Your task to perform on an android device: open app "Google Play Games" (install if not already installed) Image 0: 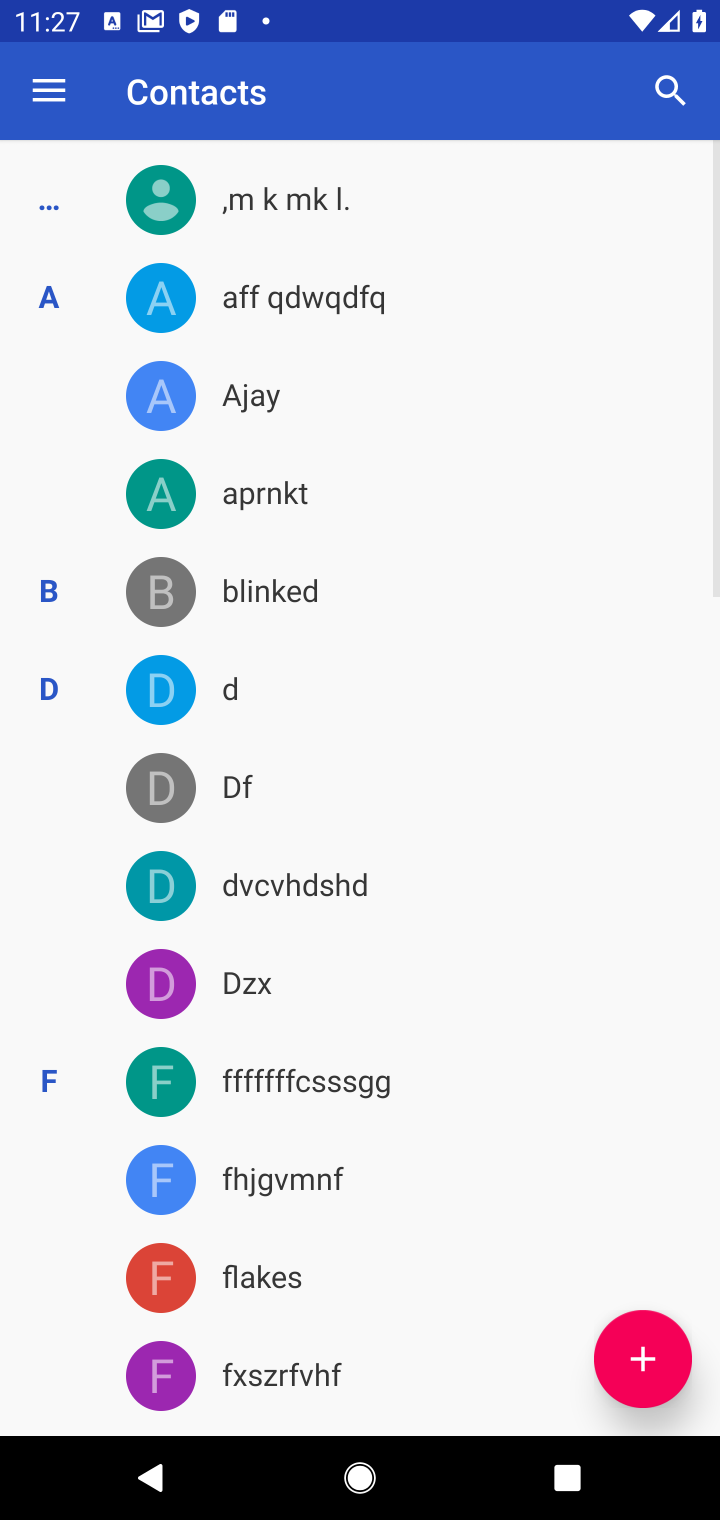
Step 0: press home button
Your task to perform on an android device: open app "Google Play Games" (install if not already installed) Image 1: 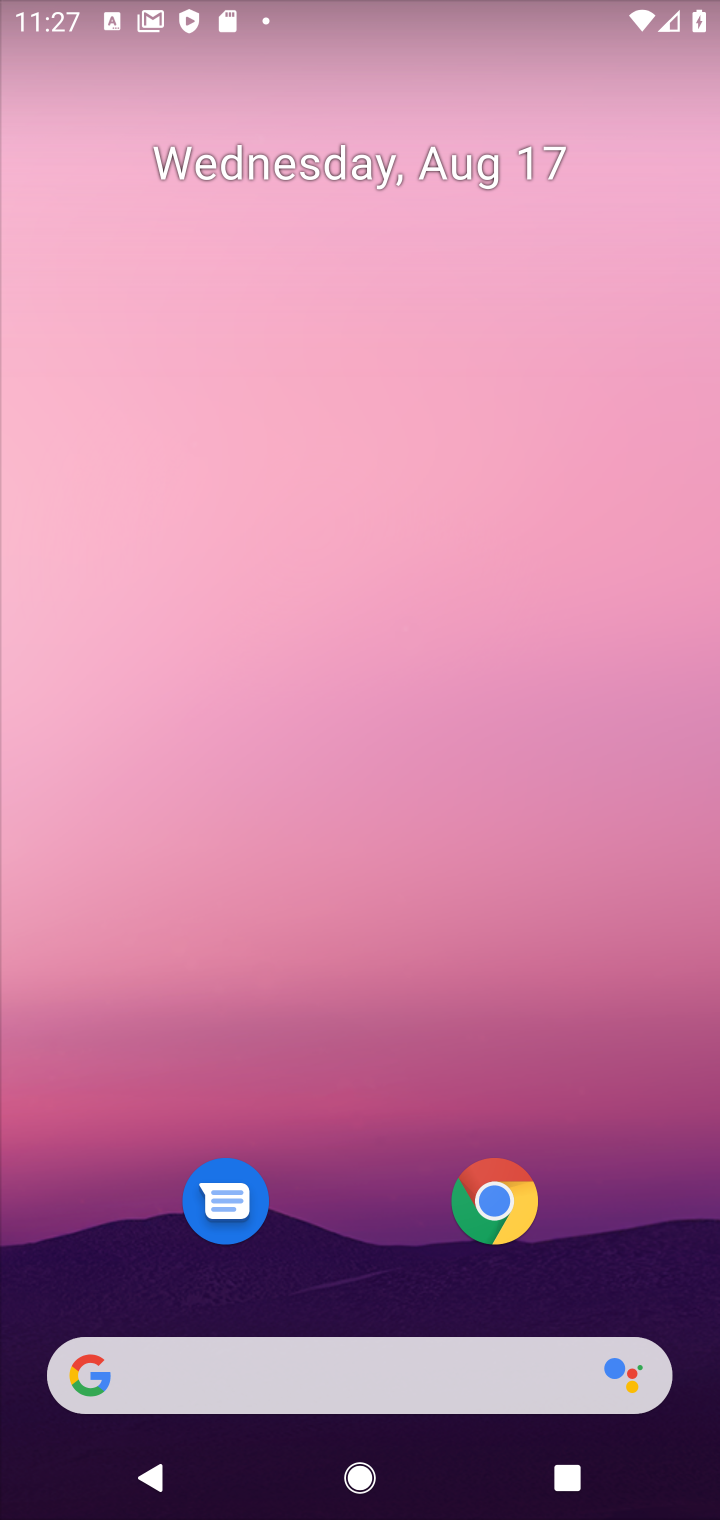
Step 1: drag from (351, 865) to (437, 315)
Your task to perform on an android device: open app "Google Play Games" (install if not already installed) Image 2: 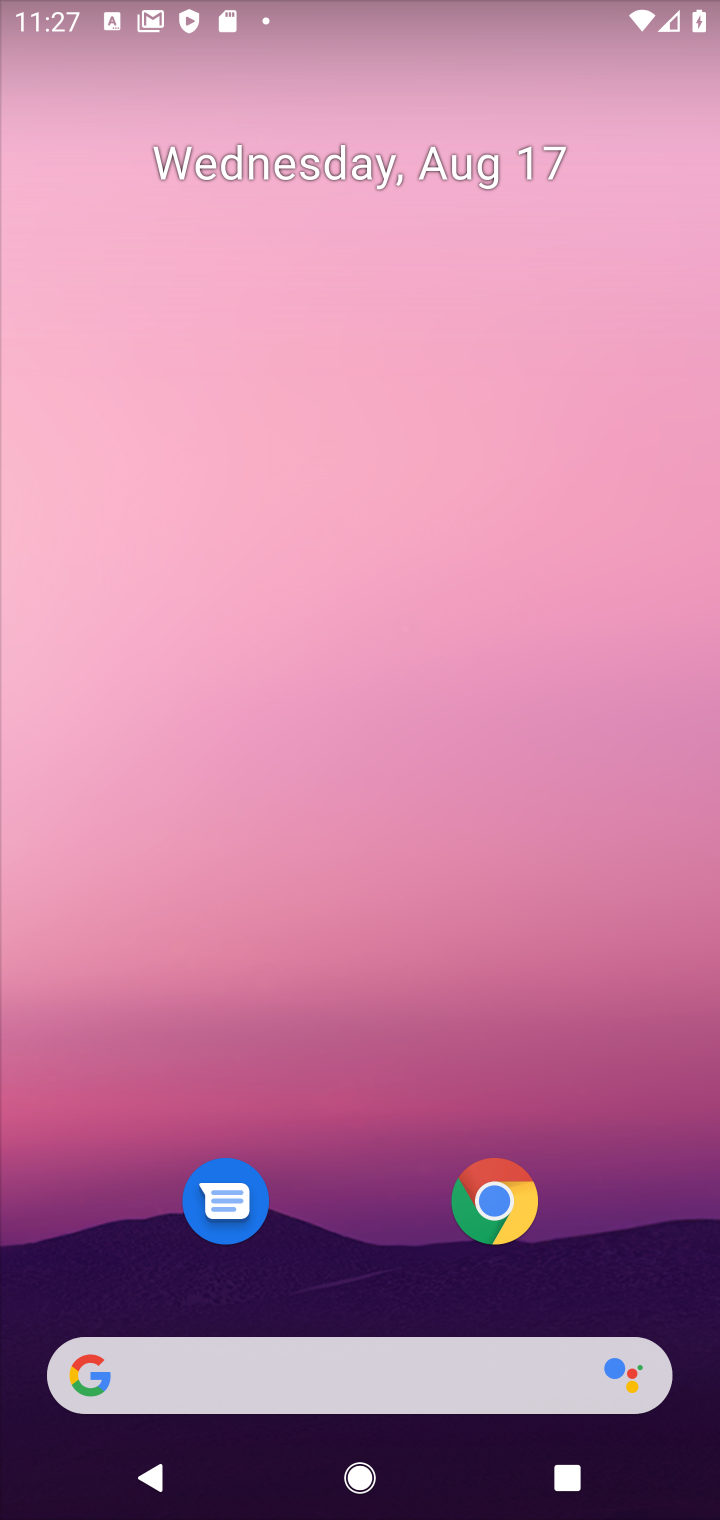
Step 2: drag from (330, 1337) to (465, 29)
Your task to perform on an android device: open app "Google Play Games" (install if not already installed) Image 3: 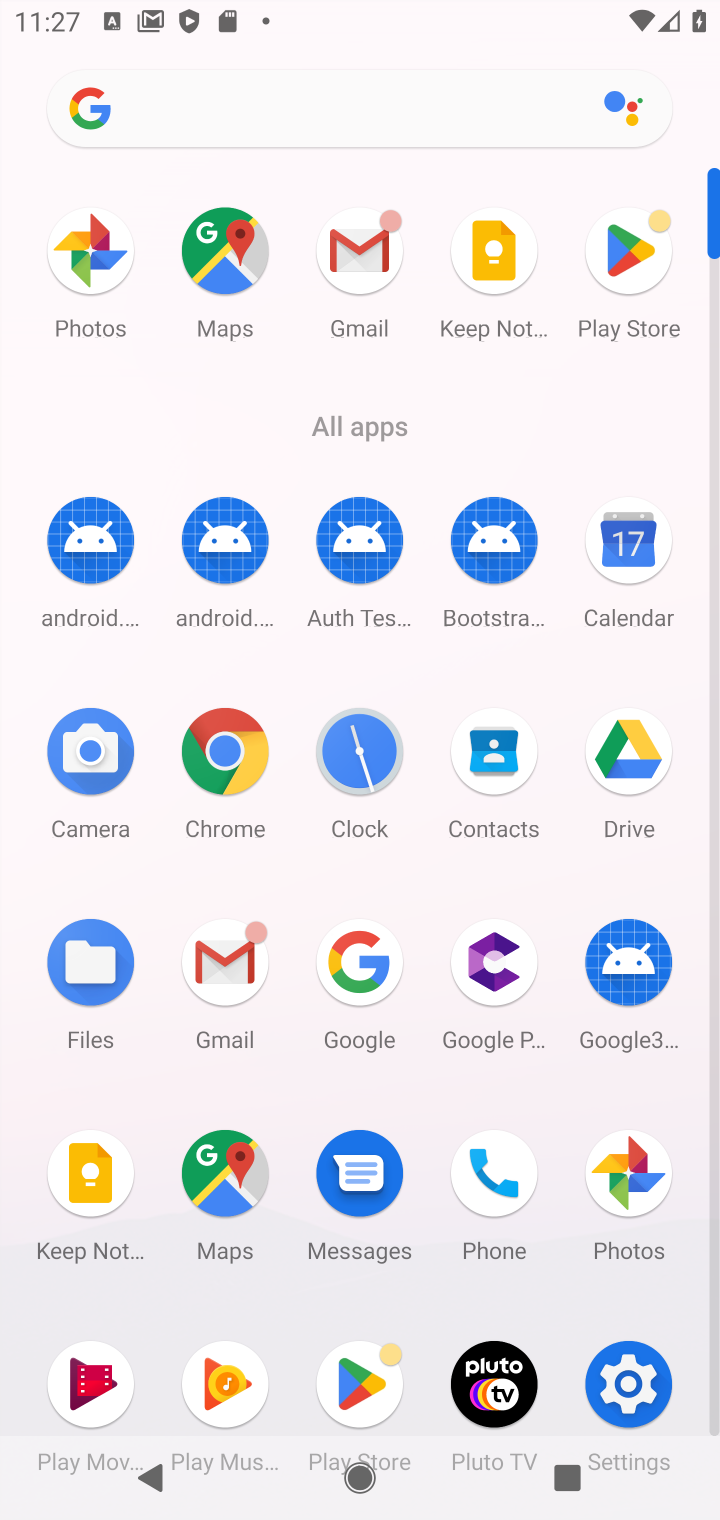
Step 3: click (623, 269)
Your task to perform on an android device: open app "Google Play Games" (install if not already installed) Image 4: 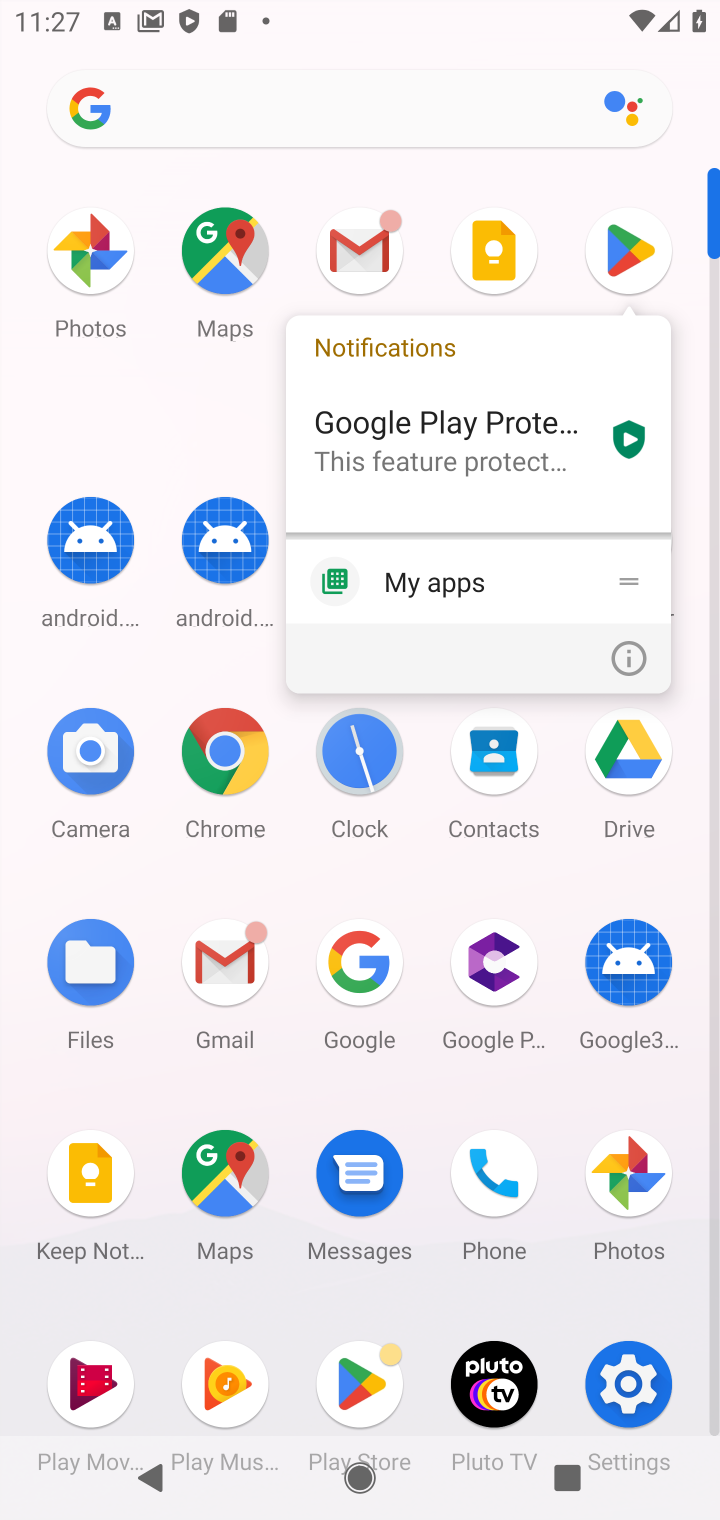
Step 4: click (623, 254)
Your task to perform on an android device: open app "Google Play Games" (install if not already installed) Image 5: 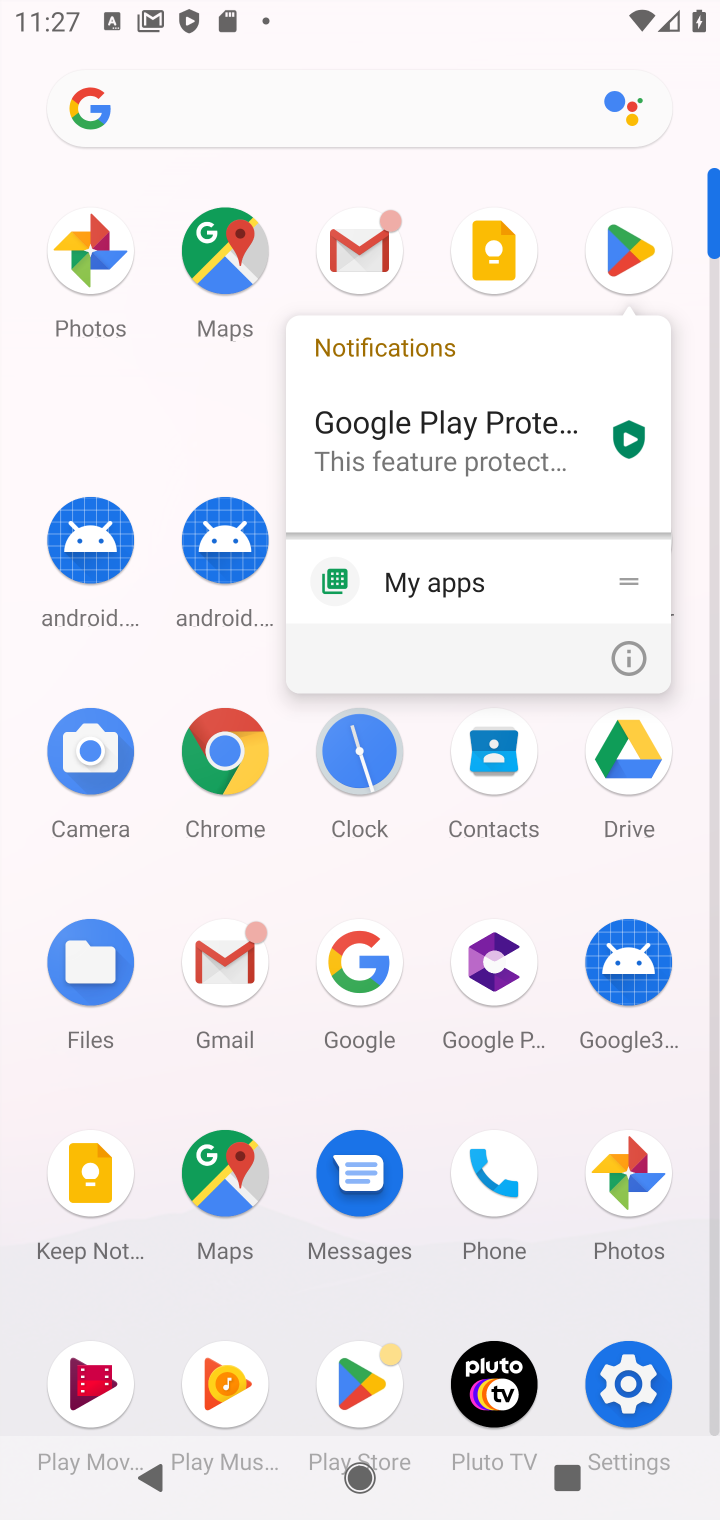
Step 5: click (619, 261)
Your task to perform on an android device: open app "Google Play Games" (install if not already installed) Image 6: 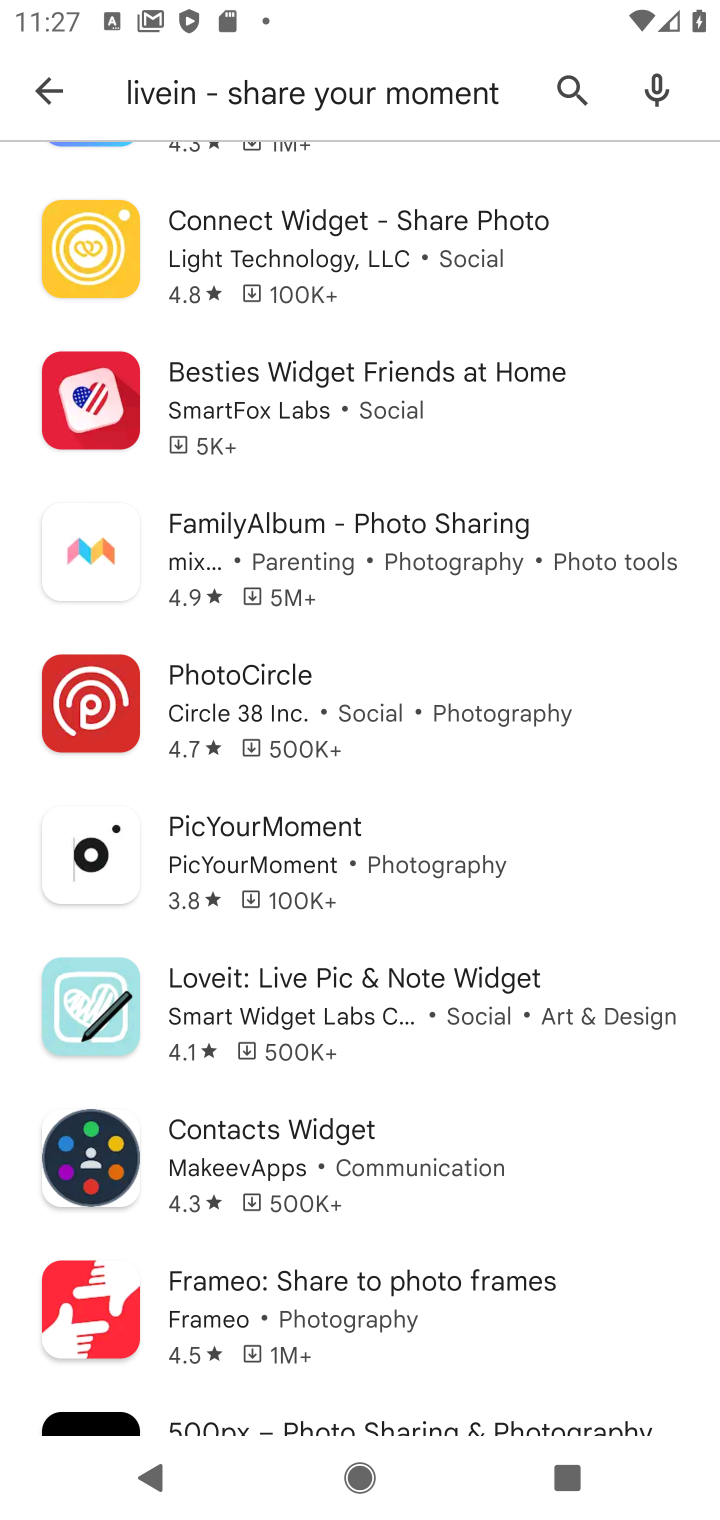
Step 6: click (275, 95)
Your task to perform on an android device: open app "Google Play Games" (install if not already installed) Image 7: 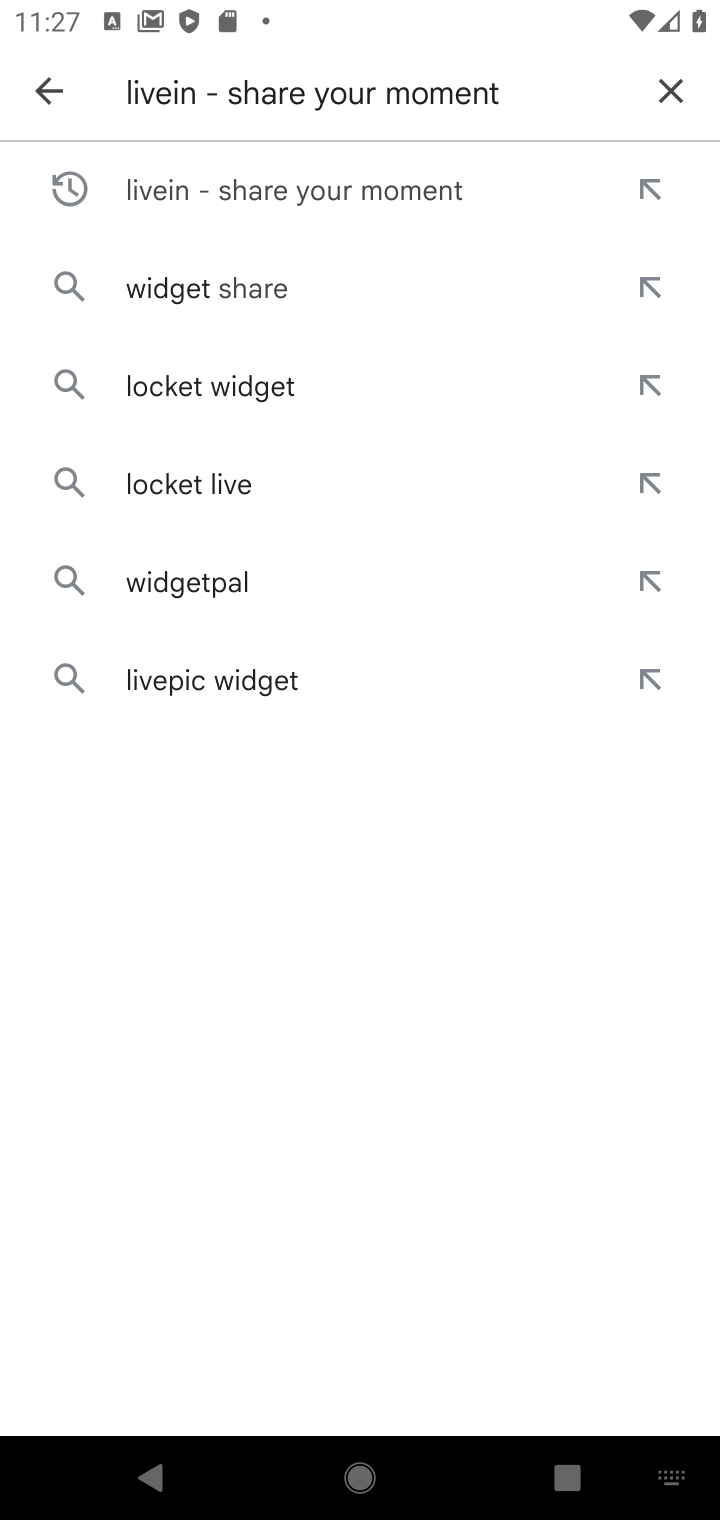
Step 7: click (659, 87)
Your task to perform on an android device: open app "Google Play Games" (install if not already installed) Image 8: 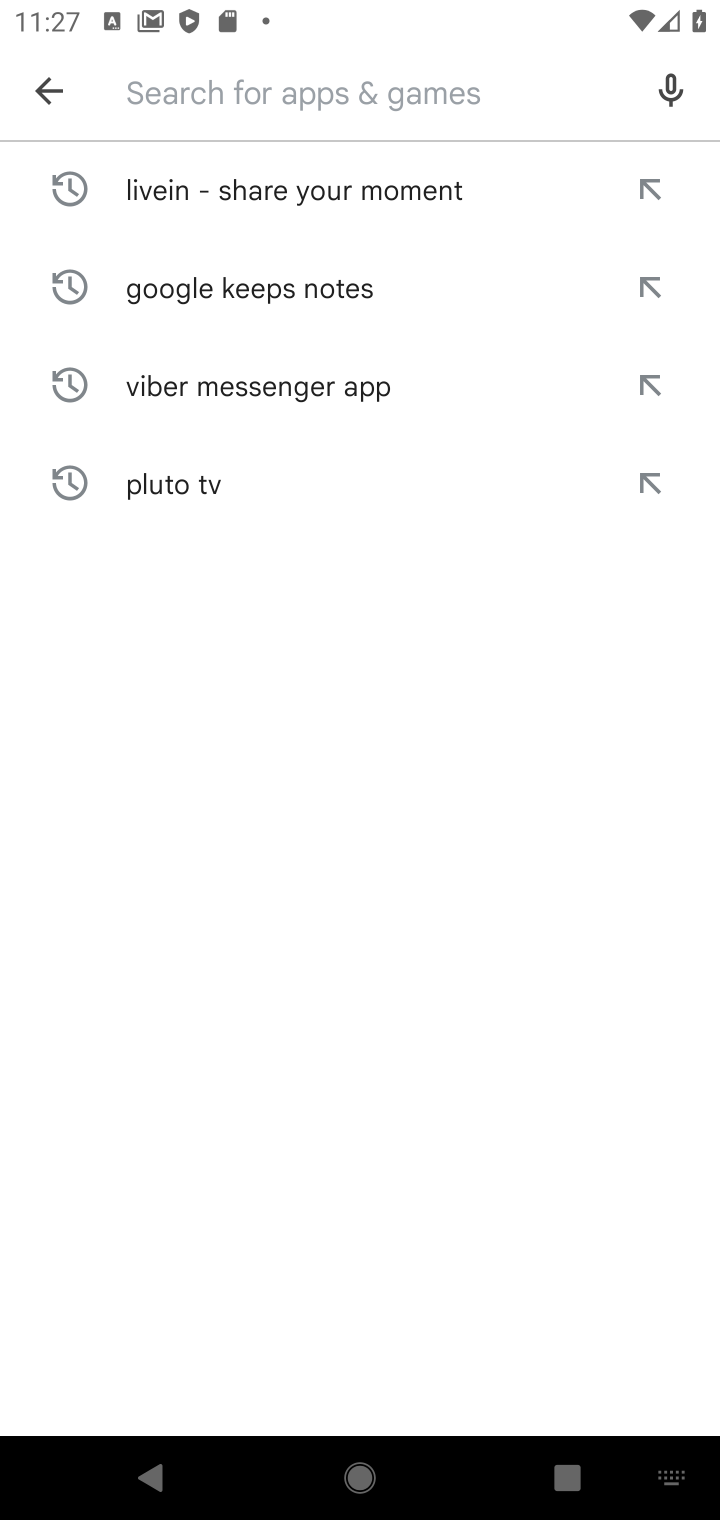
Step 8: type "google play games"
Your task to perform on an android device: open app "Google Play Games" (install if not already installed) Image 9: 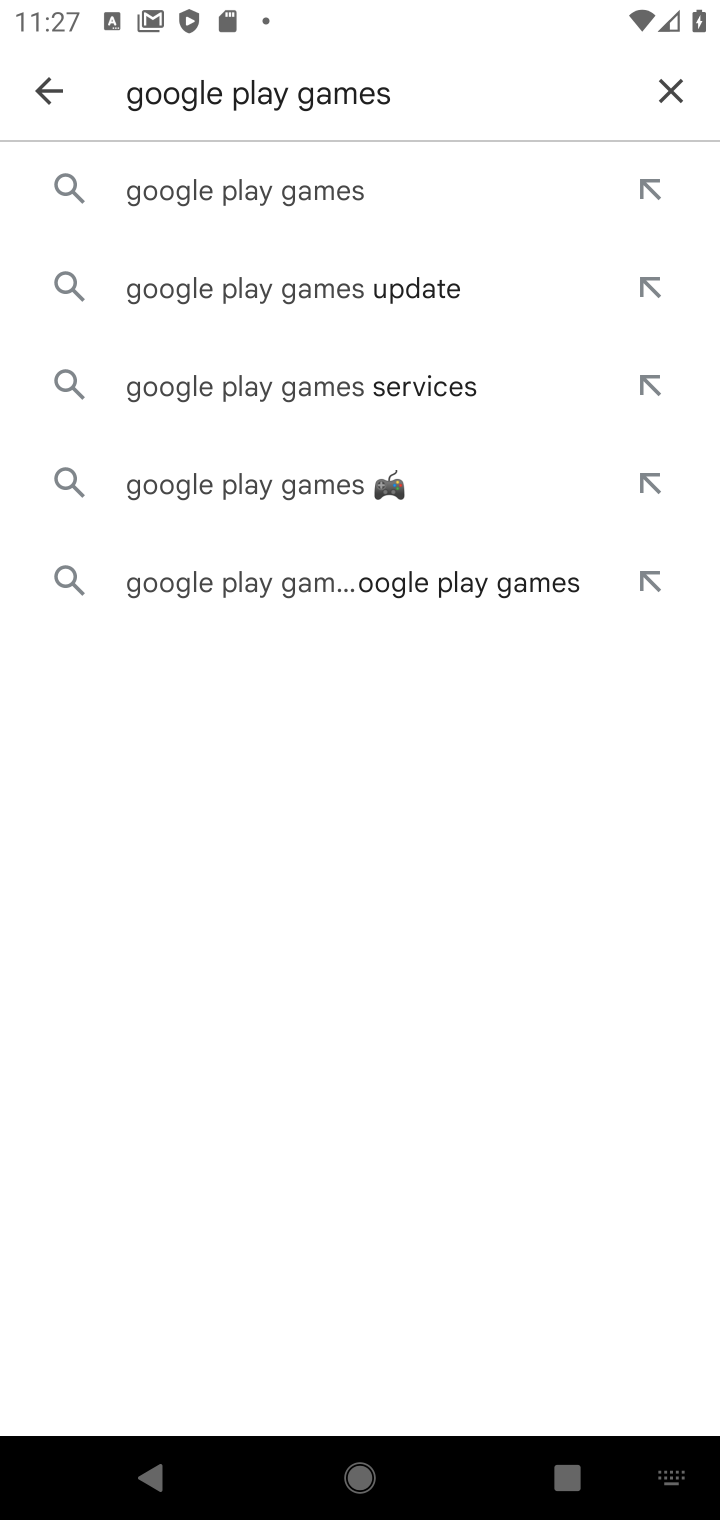
Step 9: click (213, 205)
Your task to perform on an android device: open app "Google Play Games" (install if not already installed) Image 10: 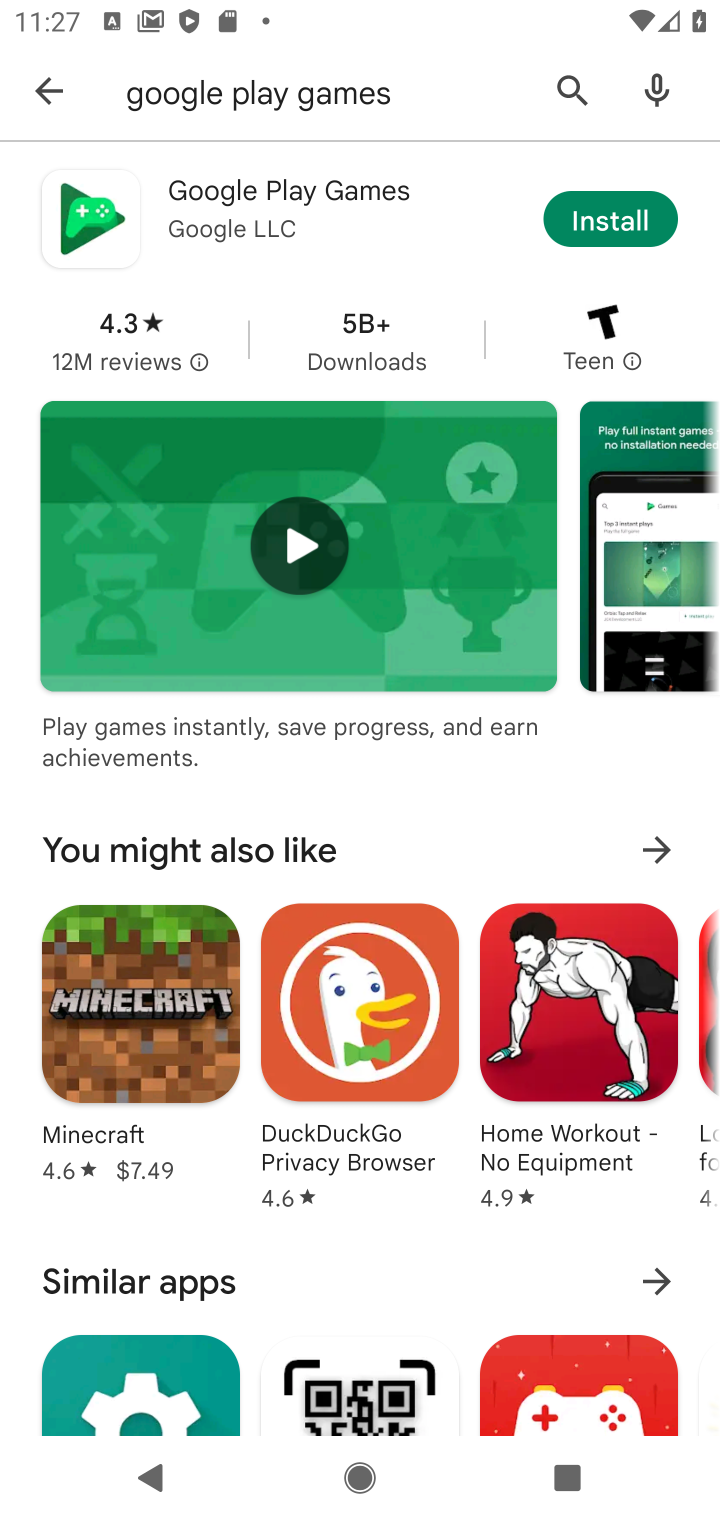
Step 10: click (603, 227)
Your task to perform on an android device: open app "Google Play Games" (install if not already installed) Image 11: 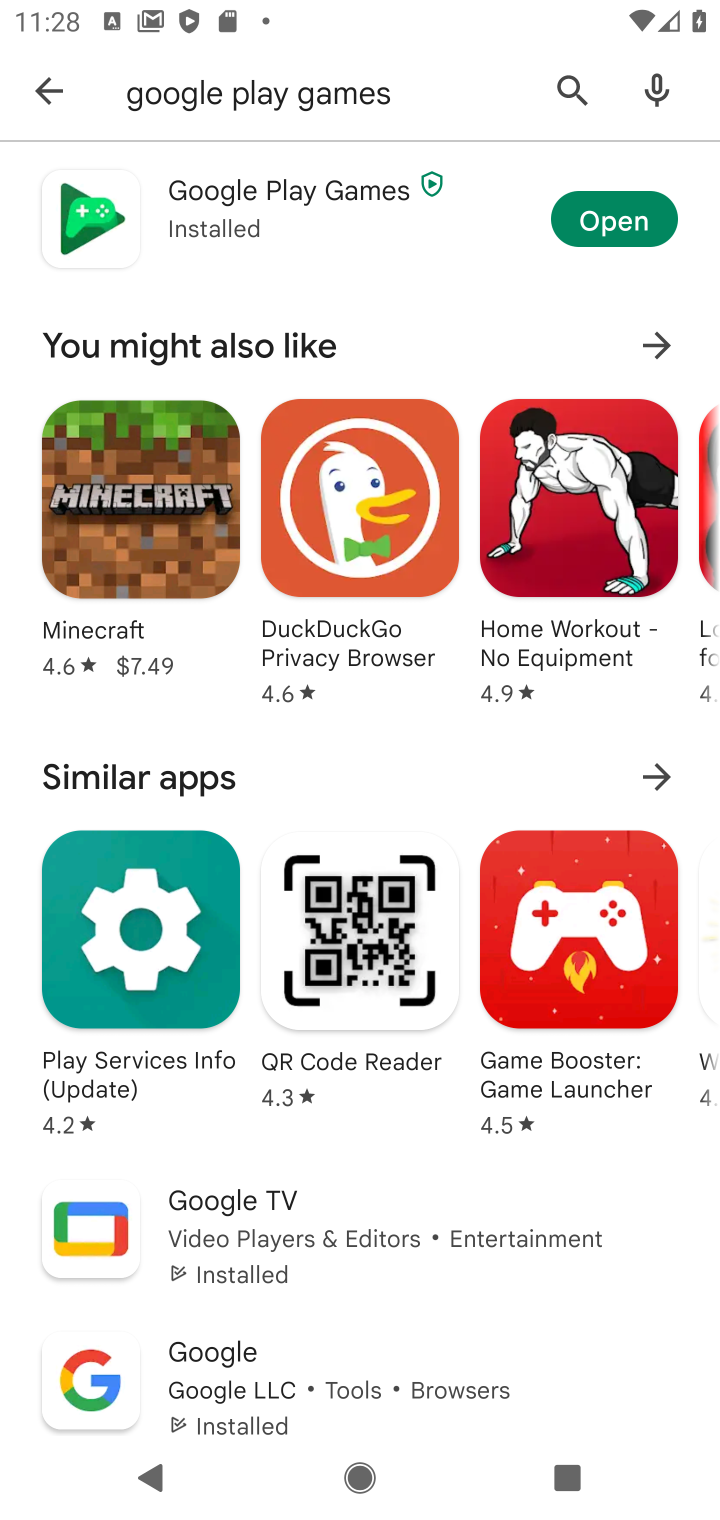
Step 11: click (579, 205)
Your task to perform on an android device: open app "Google Play Games" (install if not already installed) Image 12: 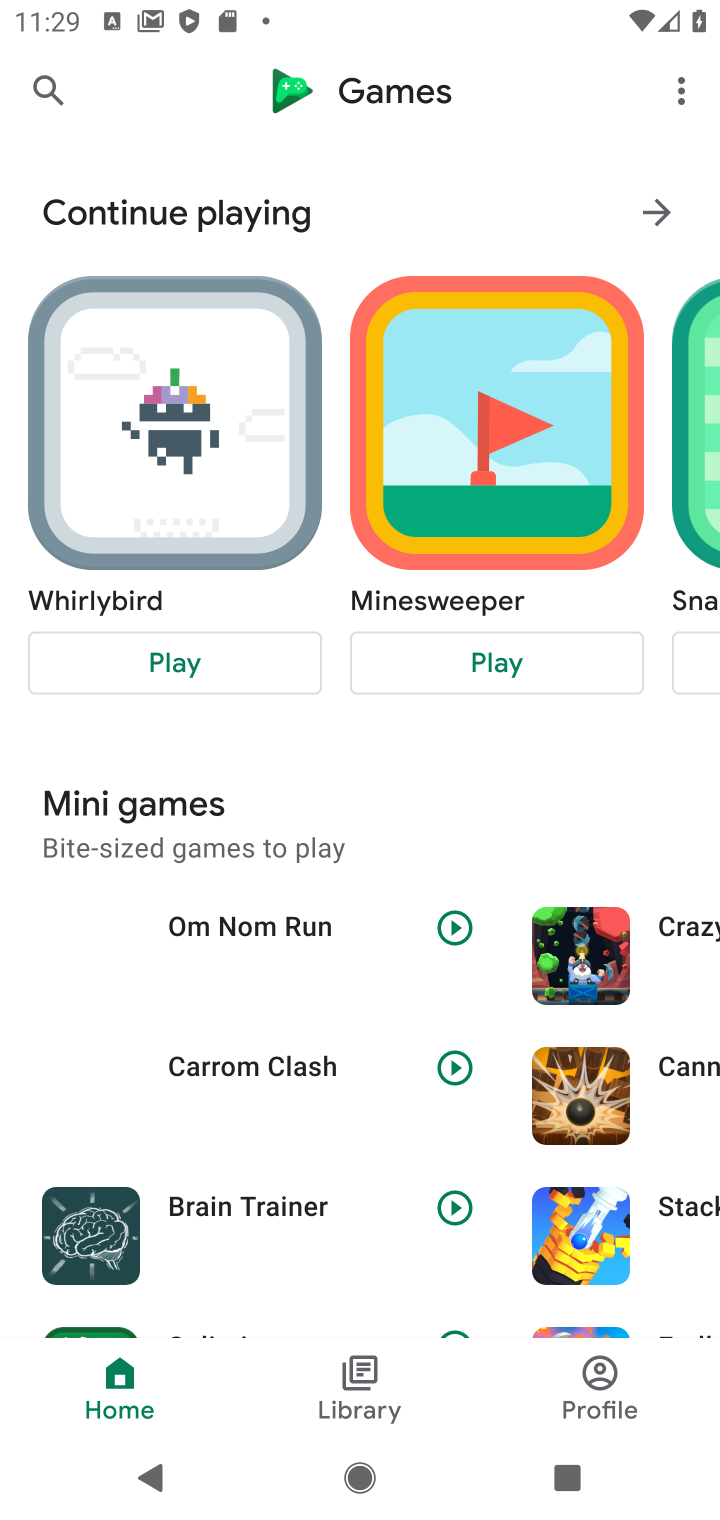
Step 12: task complete